Your task to perform on an android device: Open Reddit.com Image 0: 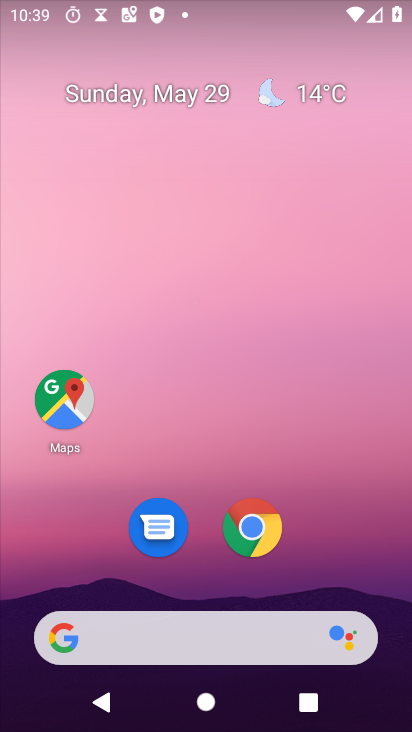
Step 0: press home button
Your task to perform on an android device: Open Reddit.com Image 1: 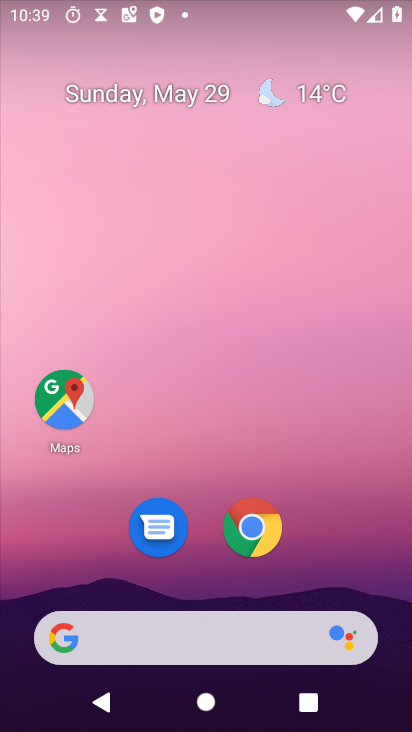
Step 1: click (258, 539)
Your task to perform on an android device: Open Reddit.com Image 2: 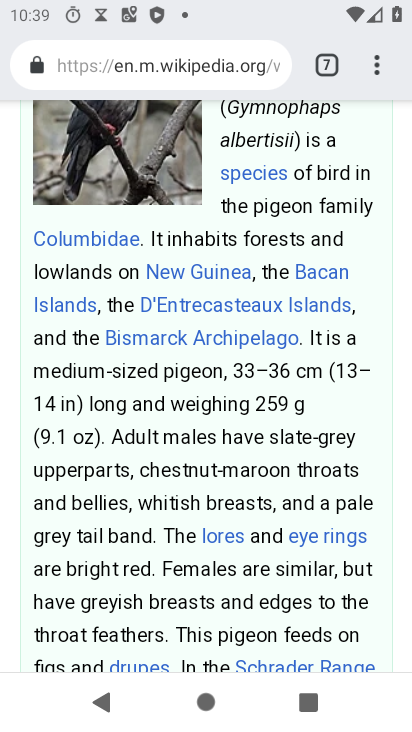
Step 2: drag from (378, 68) to (230, 130)
Your task to perform on an android device: Open Reddit.com Image 3: 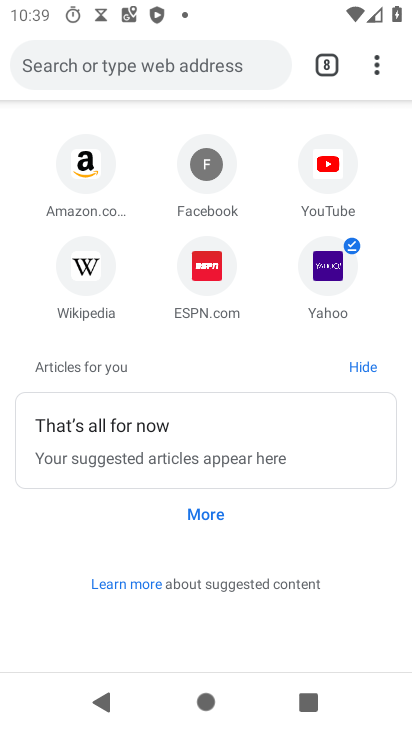
Step 3: click (95, 66)
Your task to perform on an android device: Open Reddit.com Image 4: 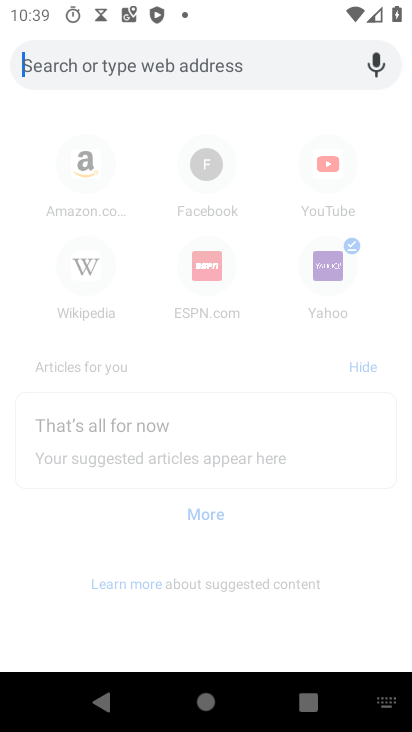
Step 4: type "reddit.com"
Your task to perform on an android device: Open Reddit.com Image 5: 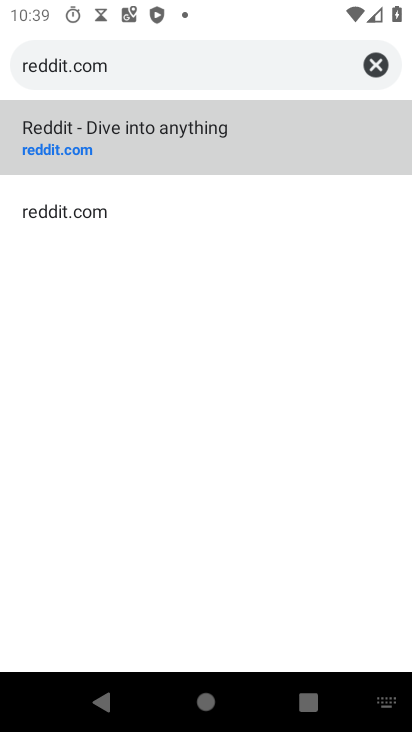
Step 5: click (102, 144)
Your task to perform on an android device: Open Reddit.com Image 6: 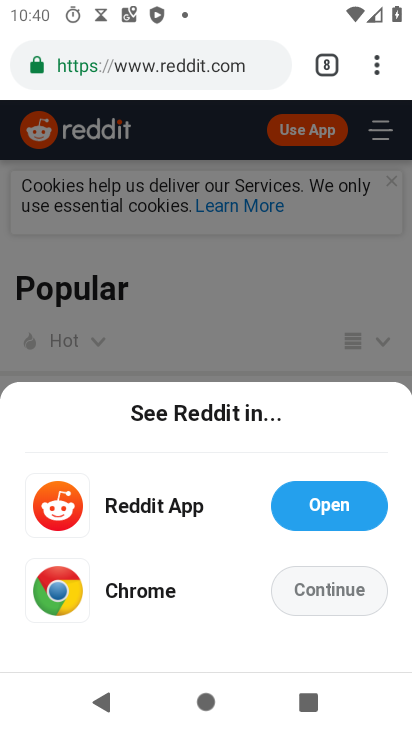
Step 6: task complete